Your task to perform on an android device: check data usage Image 0: 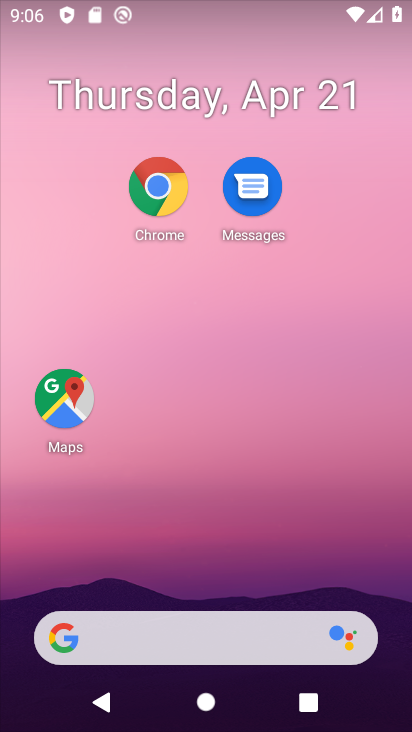
Step 0: drag from (194, 462) to (196, 14)
Your task to perform on an android device: check data usage Image 1: 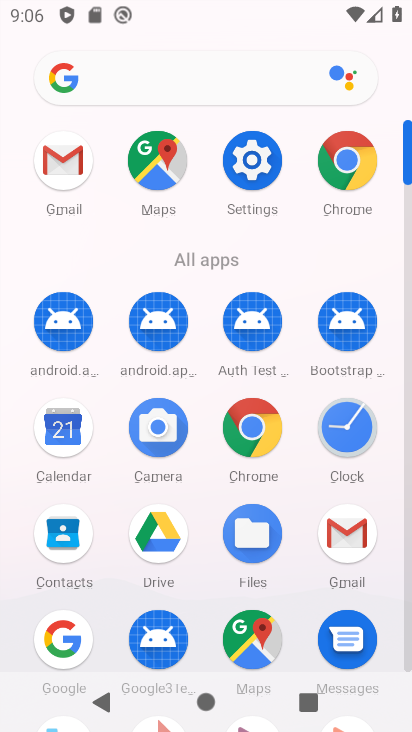
Step 1: click (252, 149)
Your task to perform on an android device: check data usage Image 2: 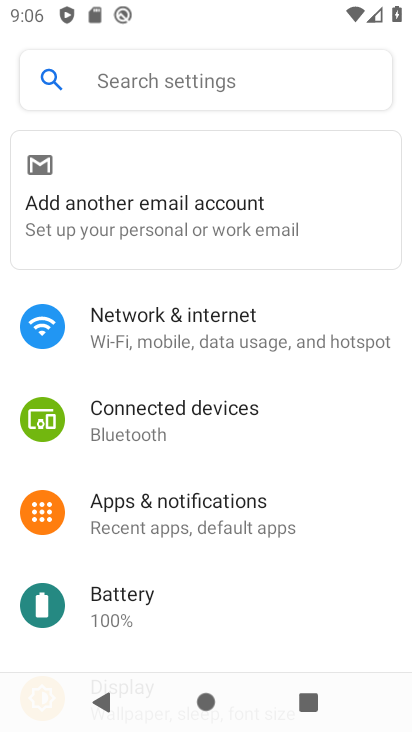
Step 2: click (208, 323)
Your task to perform on an android device: check data usage Image 3: 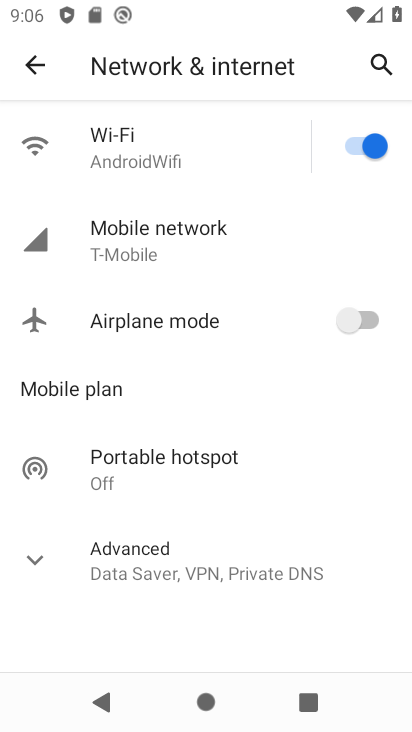
Step 3: click (172, 233)
Your task to perform on an android device: check data usage Image 4: 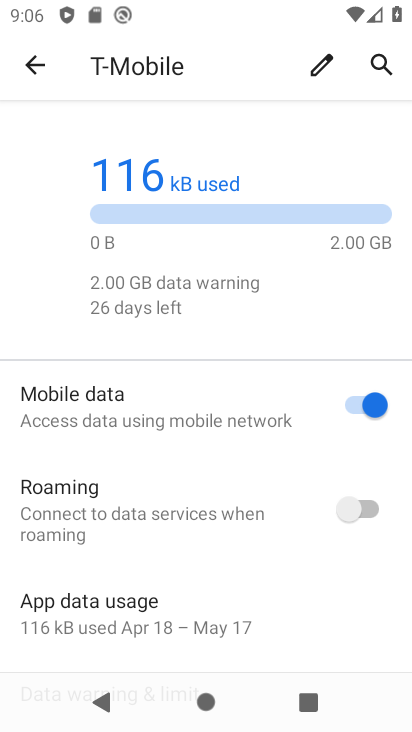
Step 4: task complete